Your task to perform on an android device: see creations saved in the google photos Image 0: 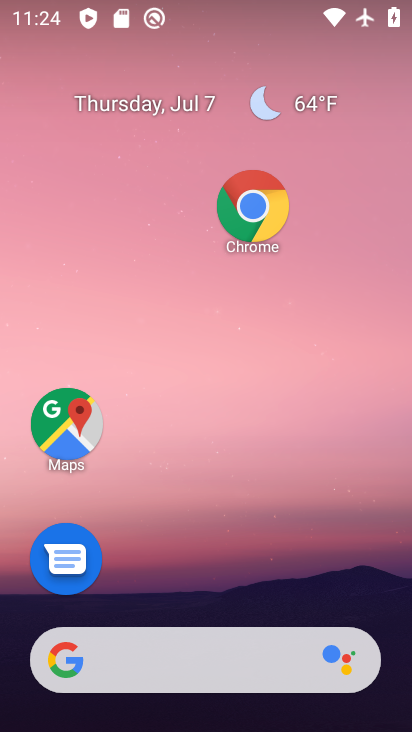
Step 0: drag from (190, 629) to (217, 201)
Your task to perform on an android device: see creations saved in the google photos Image 1: 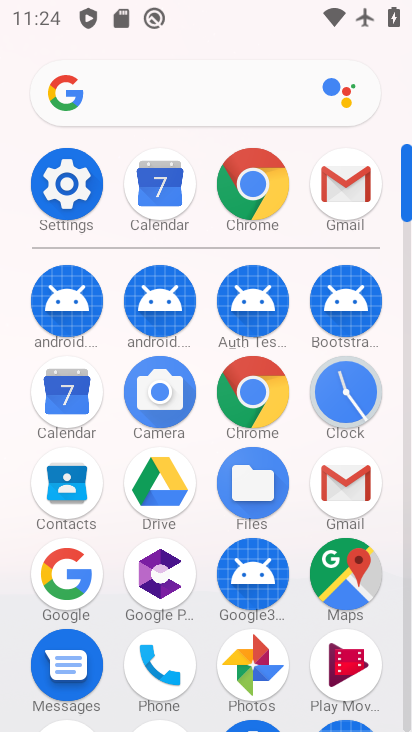
Step 1: click (247, 656)
Your task to perform on an android device: see creations saved in the google photos Image 2: 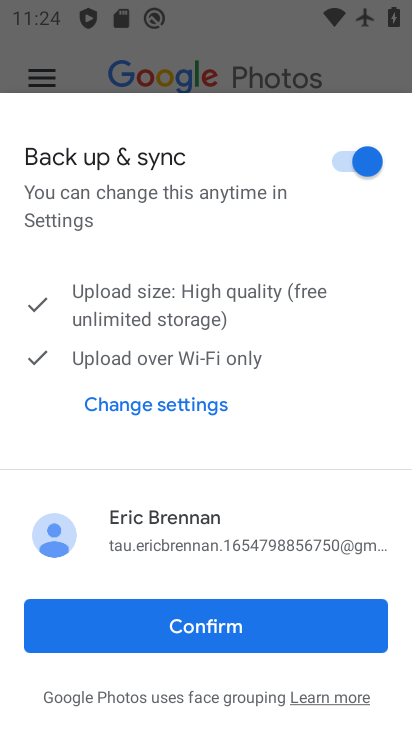
Step 2: click (248, 657)
Your task to perform on an android device: see creations saved in the google photos Image 3: 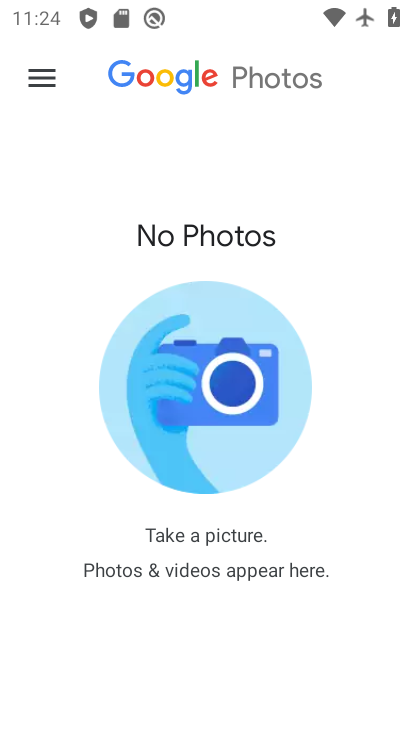
Step 3: click (207, 593)
Your task to perform on an android device: see creations saved in the google photos Image 4: 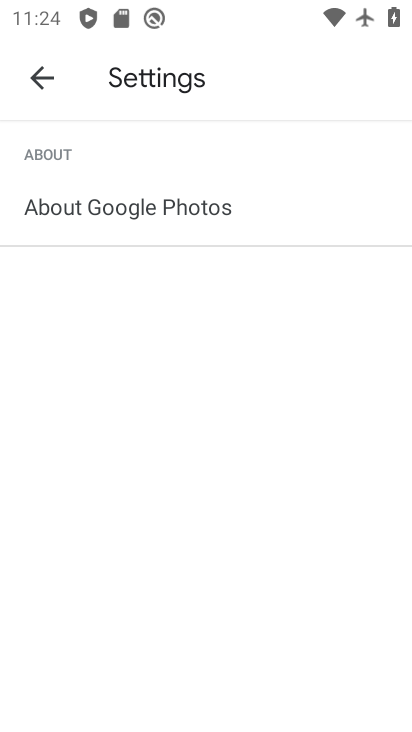
Step 4: click (40, 77)
Your task to perform on an android device: see creations saved in the google photos Image 5: 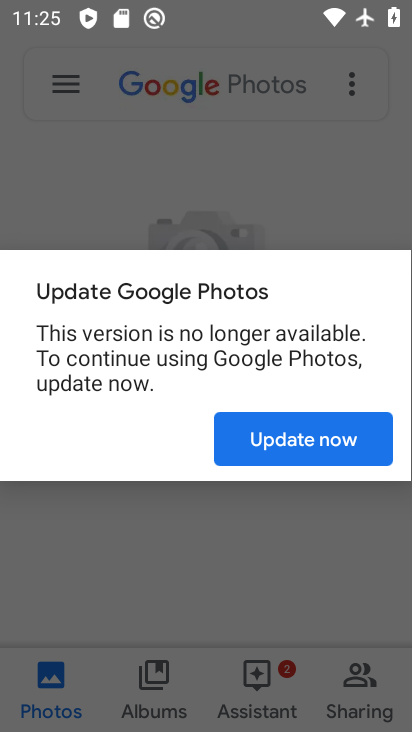
Step 5: click (321, 448)
Your task to perform on an android device: see creations saved in the google photos Image 6: 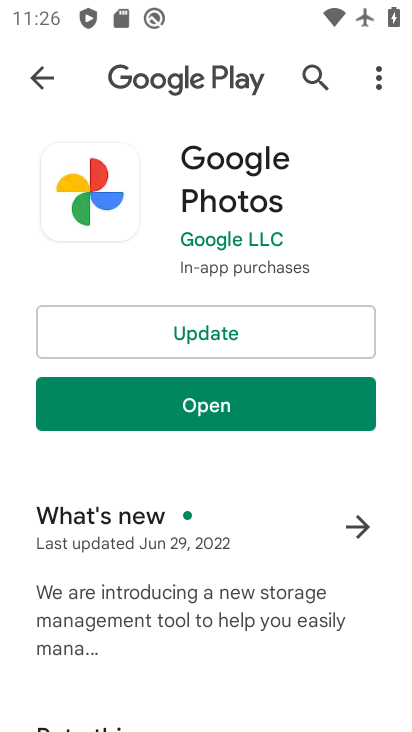
Step 6: click (267, 318)
Your task to perform on an android device: see creations saved in the google photos Image 7: 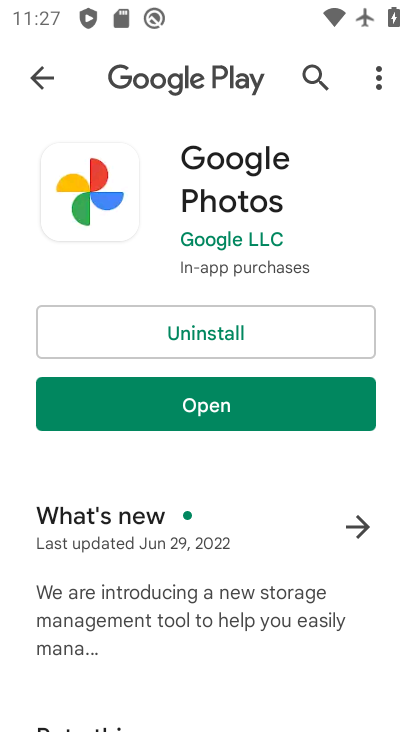
Step 7: click (190, 412)
Your task to perform on an android device: see creations saved in the google photos Image 8: 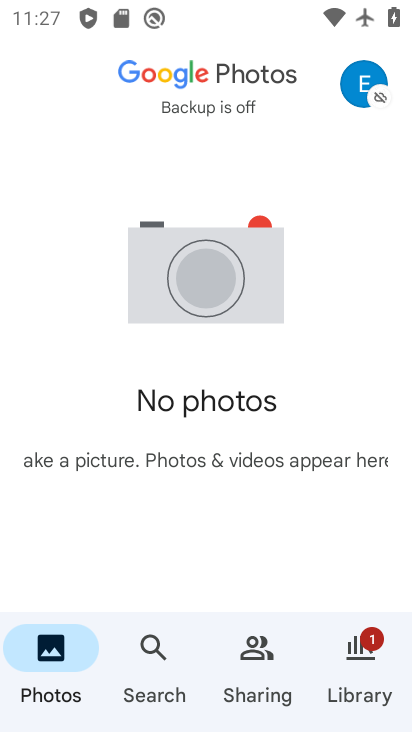
Step 8: click (347, 660)
Your task to perform on an android device: see creations saved in the google photos Image 9: 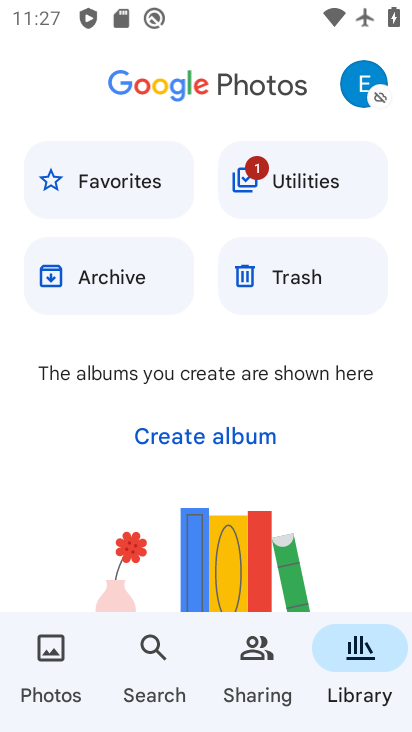
Step 9: task complete